Your task to perform on an android device: Search for seafood restaurants on Google Maps Image 0: 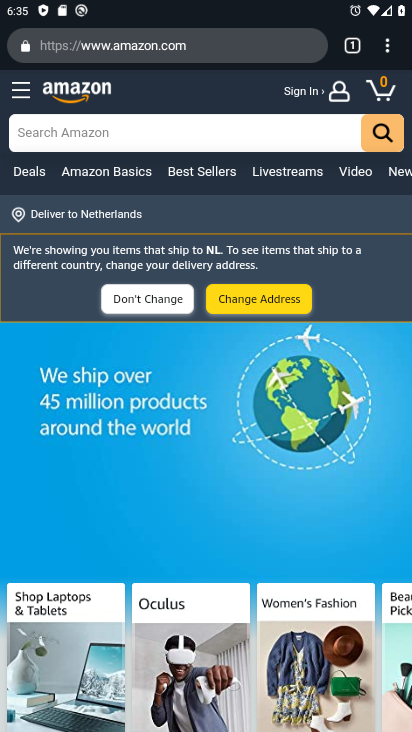
Step 0: press home button
Your task to perform on an android device: Search for seafood restaurants on Google Maps Image 1: 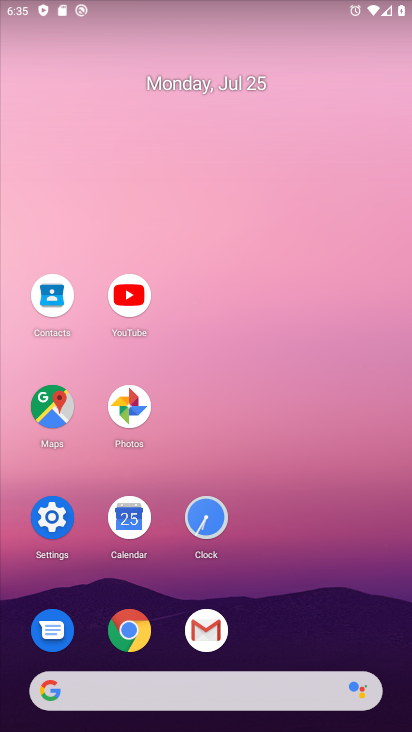
Step 1: click (44, 407)
Your task to perform on an android device: Search for seafood restaurants on Google Maps Image 2: 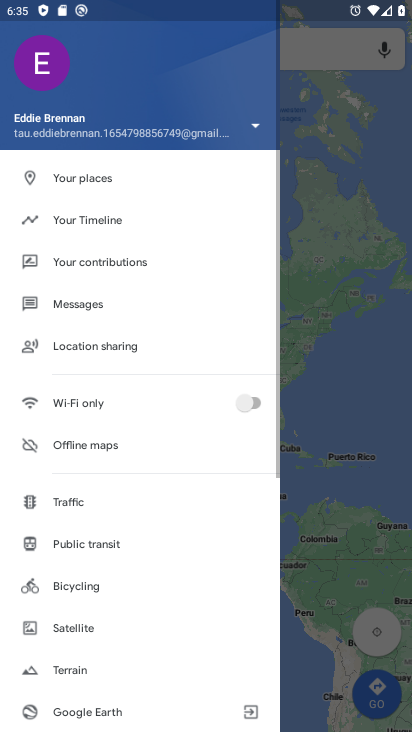
Step 2: click (372, 117)
Your task to perform on an android device: Search for seafood restaurants on Google Maps Image 3: 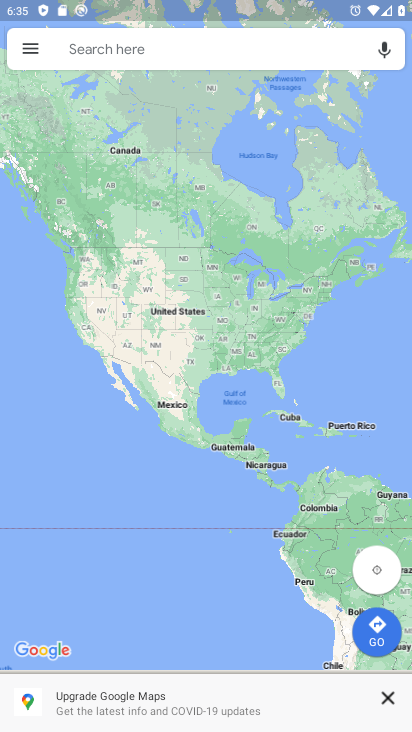
Step 3: click (228, 47)
Your task to perform on an android device: Search for seafood restaurants on Google Maps Image 4: 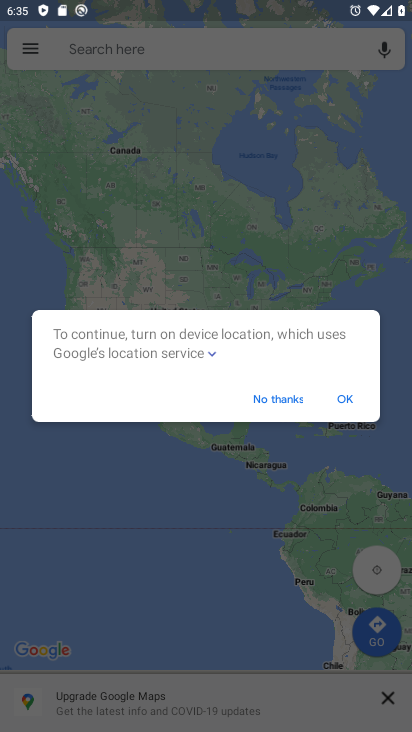
Step 4: click (343, 393)
Your task to perform on an android device: Search for seafood restaurants on Google Maps Image 5: 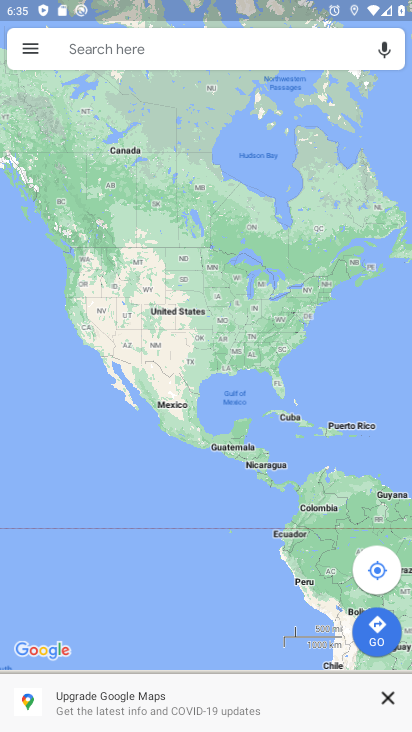
Step 5: click (108, 53)
Your task to perform on an android device: Search for seafood restaurants on Google Maps Image 6: 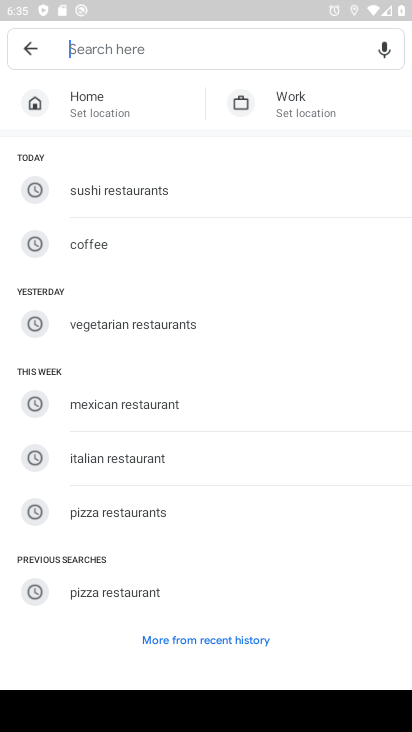
Step 6: type "seafood restaurant"
Your task to perform on an android device: Search for seafood restaurants on Google Maps Image 7: 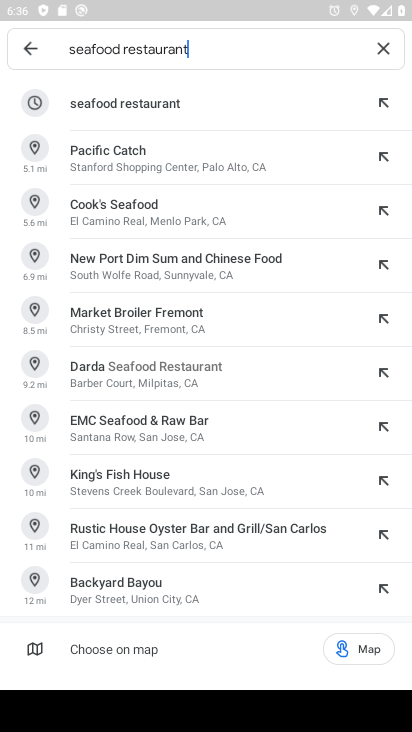
Step 7: click (155, 102)
Your task to perform on an android device: Search for seafood restaurants on Google Maps Image 8: 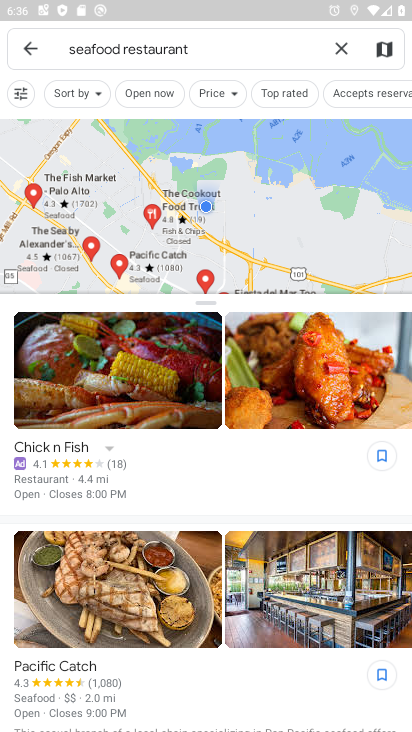
Step 8: task complete